Your task to perform on an android device: Open the stopwatch Image 0: 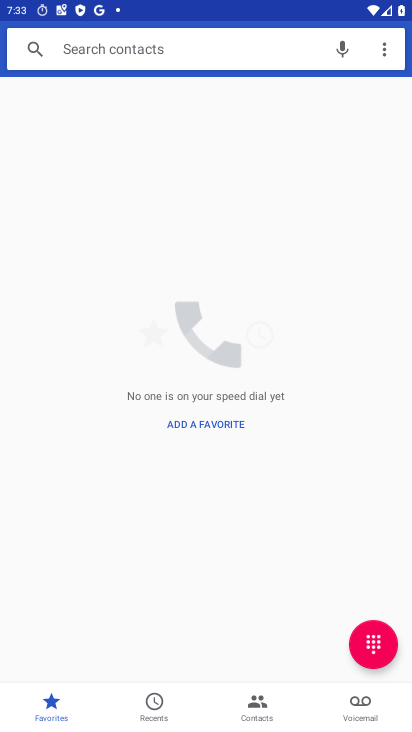
Step 0: press home button
Your task to perform on an android device: Open the stopwatch Image 1: 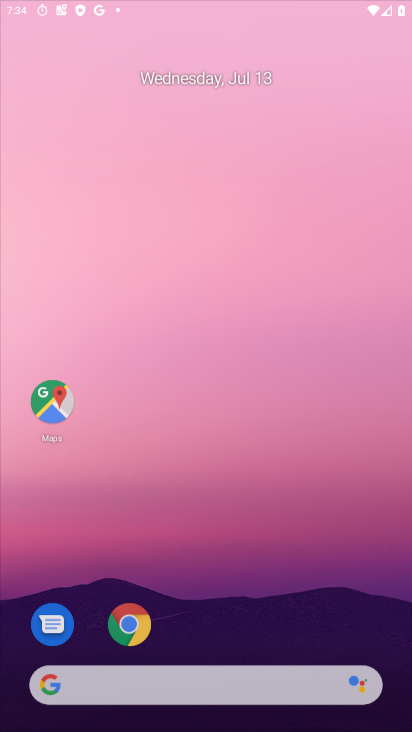
Step 1: drag from (328, 646) to (296, 89)
Your task to perform on an android device: Open the stopwatch Image 2: 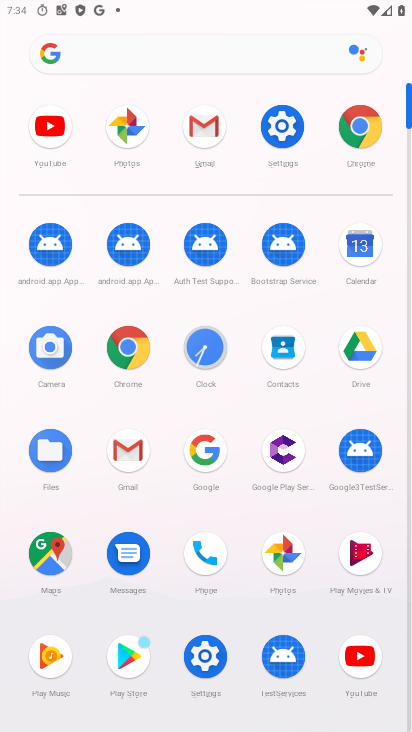
Step 2: click (192, 361)
Your task to perform on an android device: Open the stopwatch Image 3: 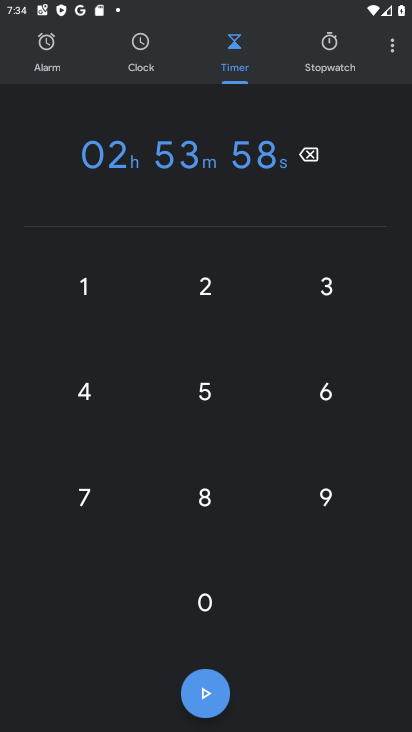
Step 3: click (328, 60)
Your task to perform on an android device: Open the stopwatch Image 4: 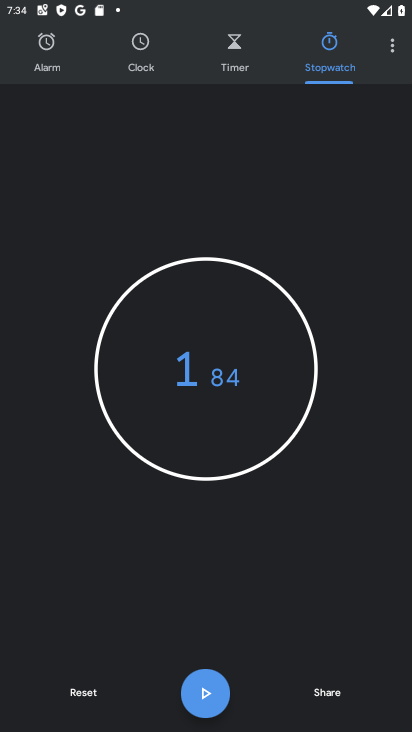
Step 4: task complete